Your task to perform on an android device: change the clock style Image 0: 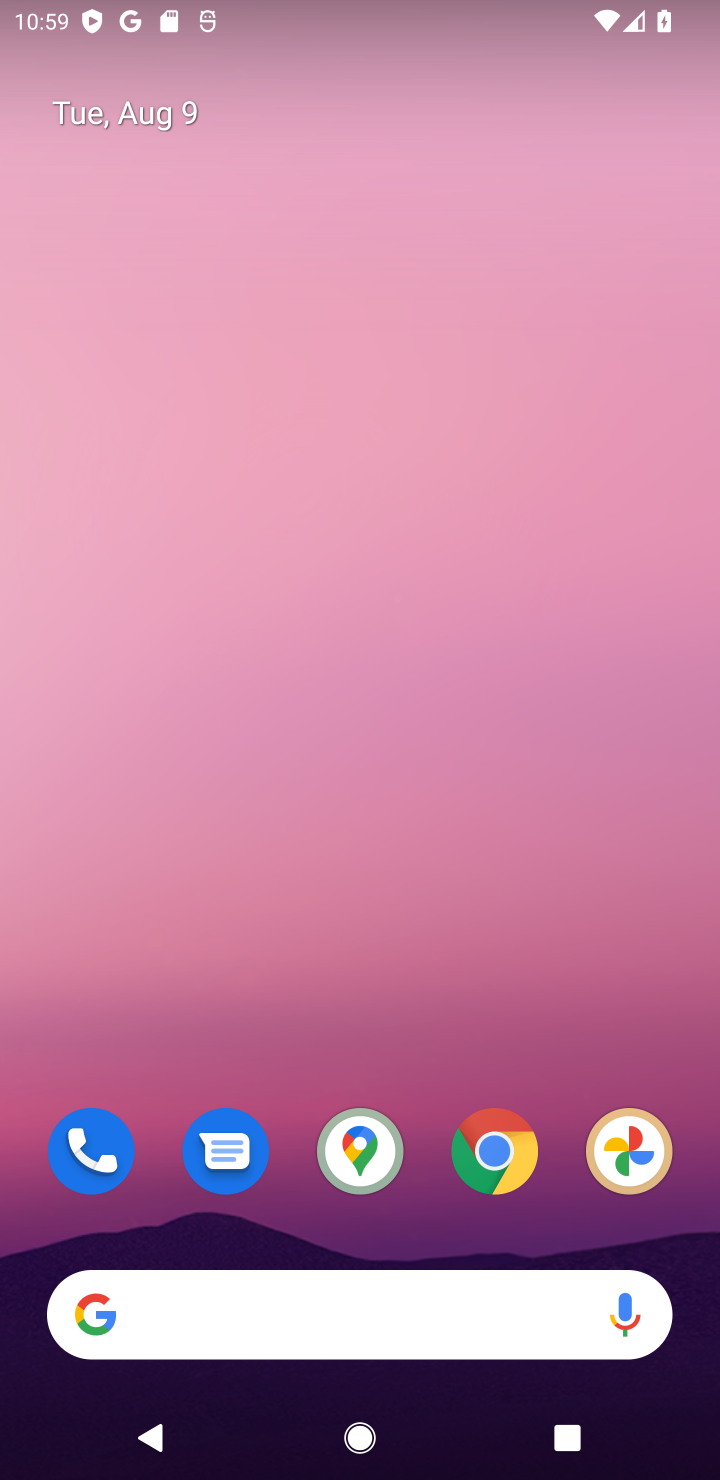
Step 0: drag from (286, 1241) to (240, 162)
Your task to perform on an android device: change the clock style Image 1: 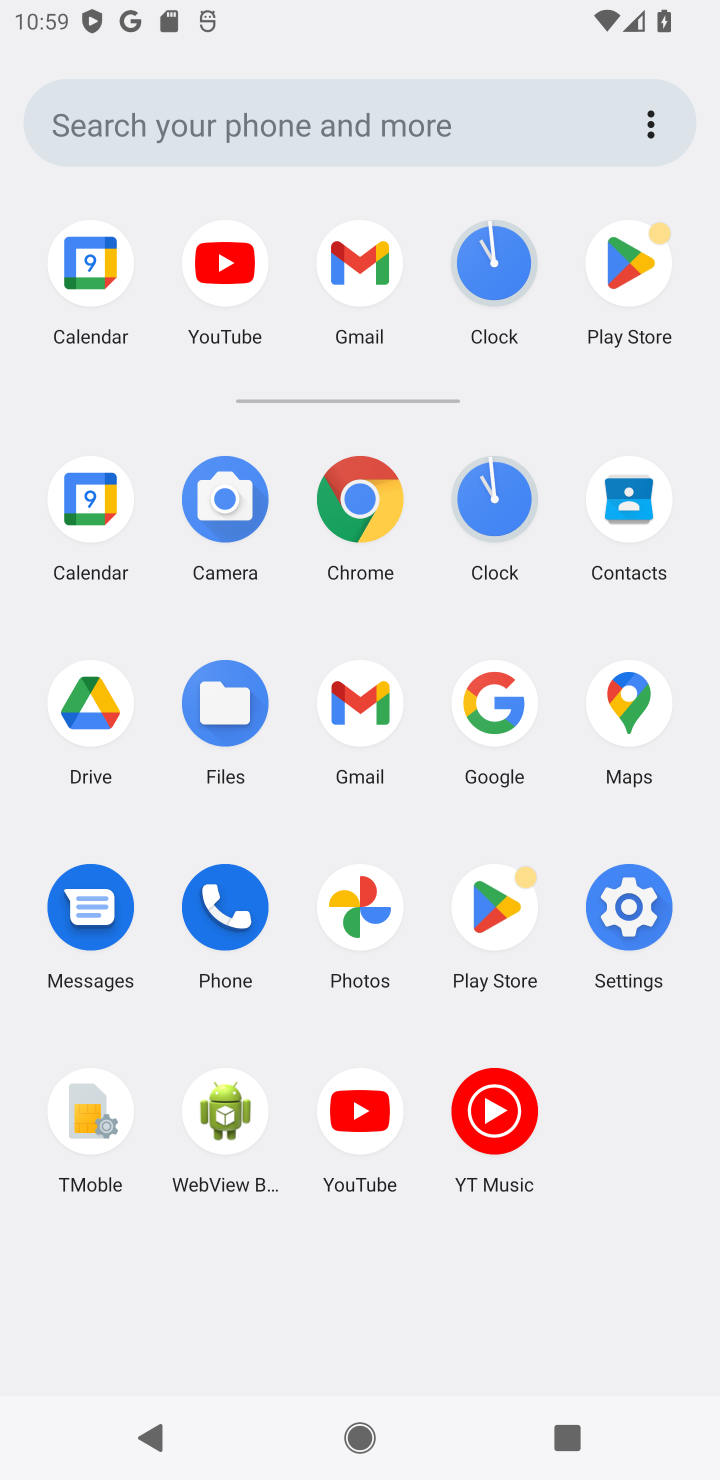
Step 1: click (464, 265)
Your task to perform on an android device: change the clock style Image 2: 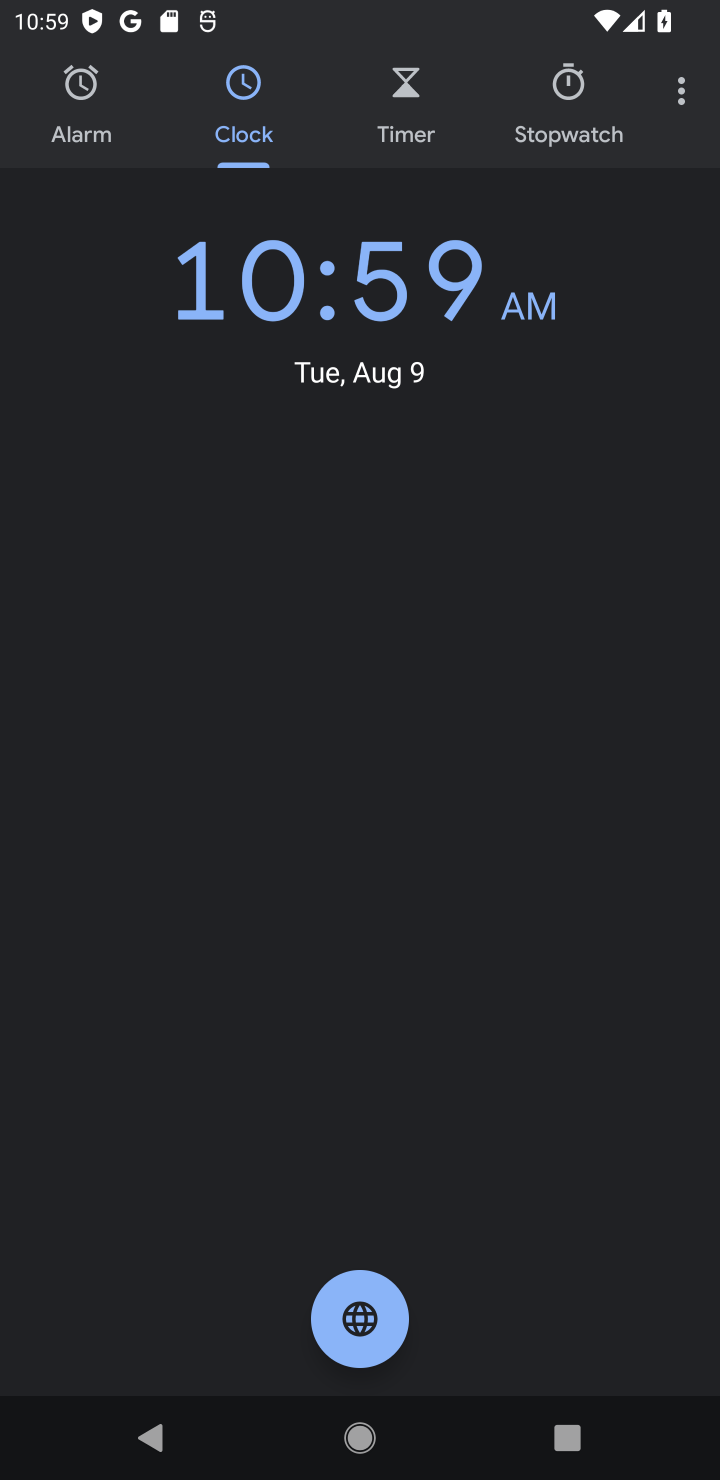
Step 2: click (687, 87)
Your task to perform on an android device: change the clock style Image 3: 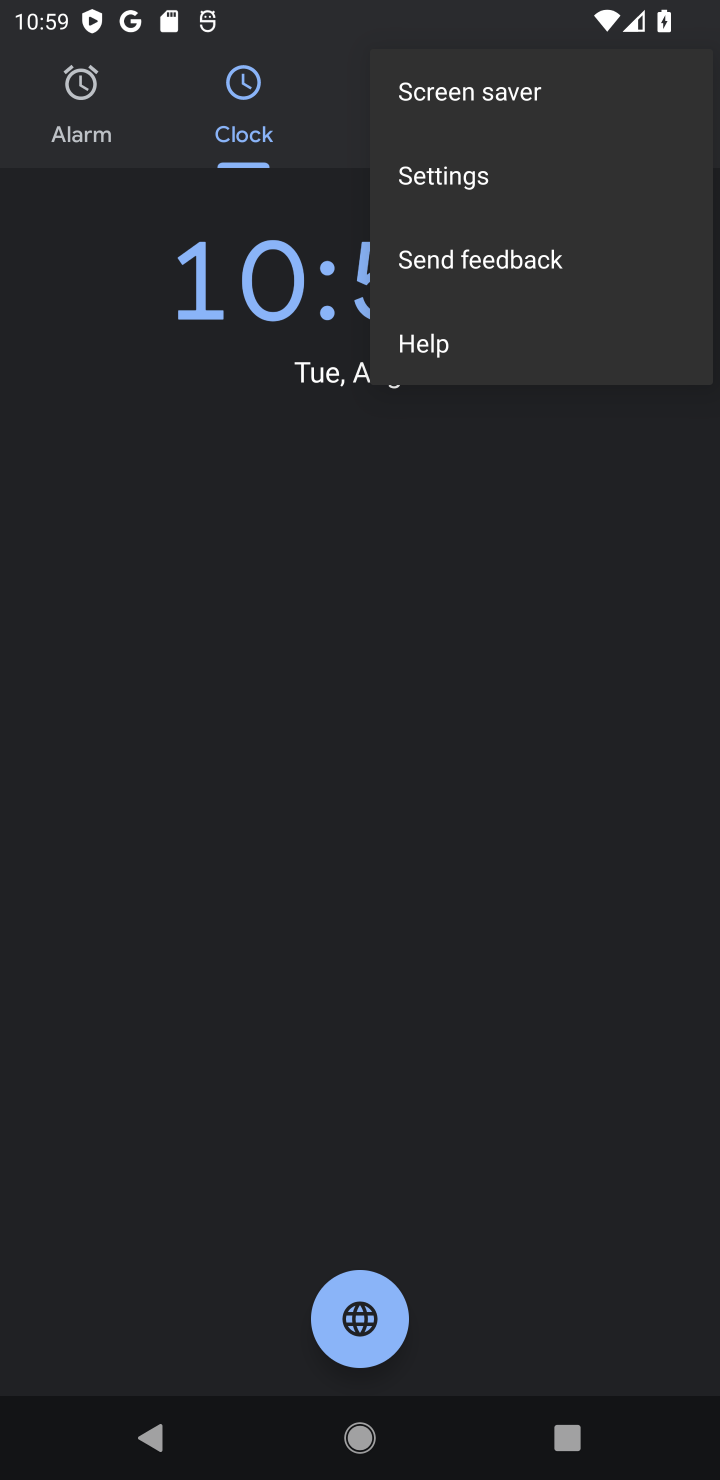
Step 3: click (440, 172)
Your task to perform on an android device: change the clock style Image 4: 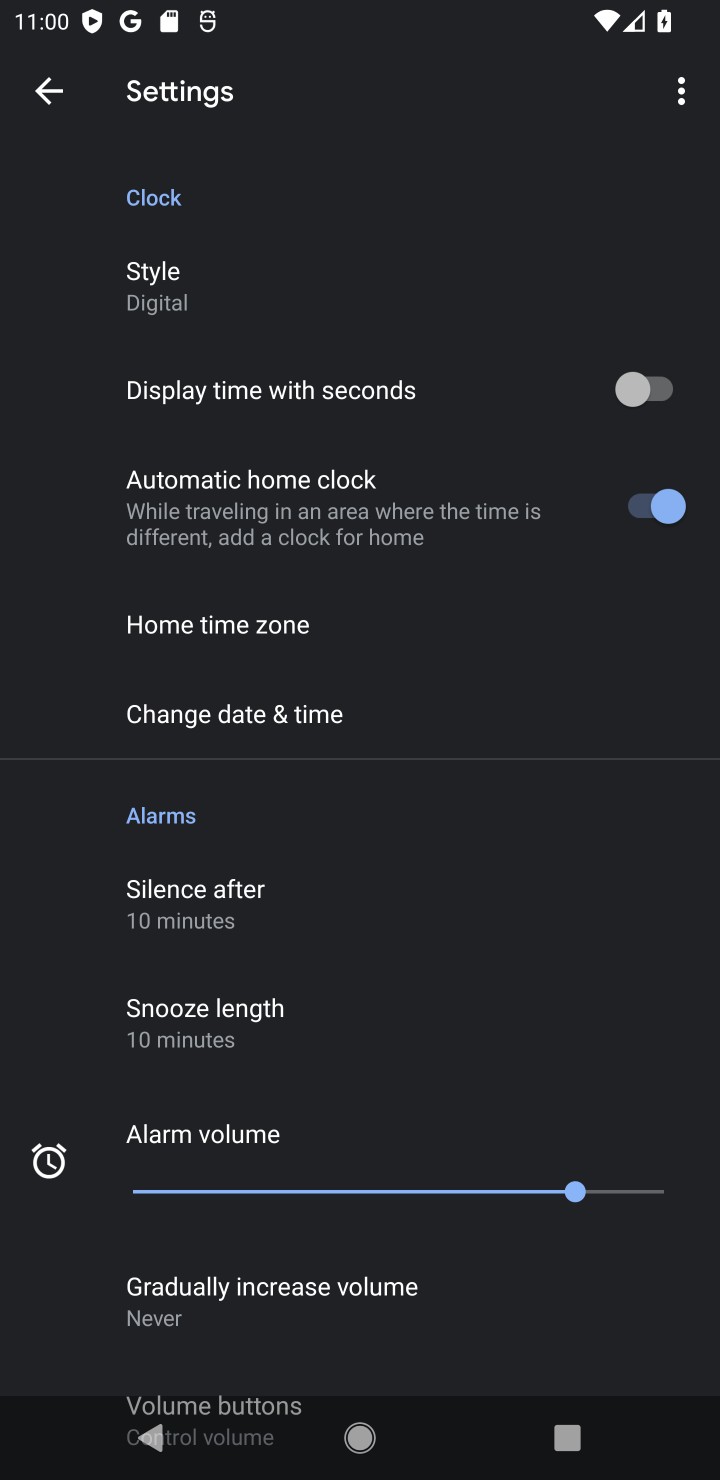
Step 4: click (370, 309)
Your task to perform on an android device: change the clock style Image 5: 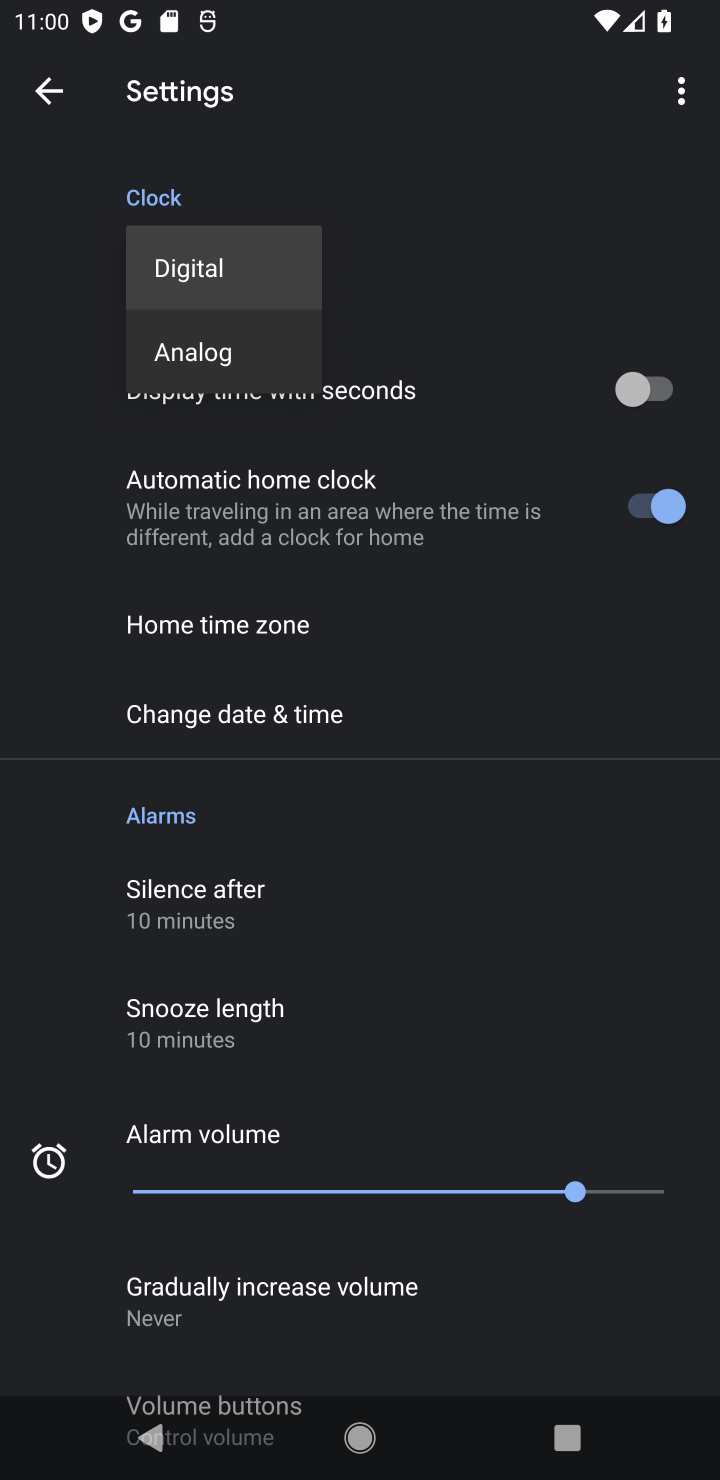
Step 5: click (253, 363)
Your task to perform on an android device: change the clock style Image 6: 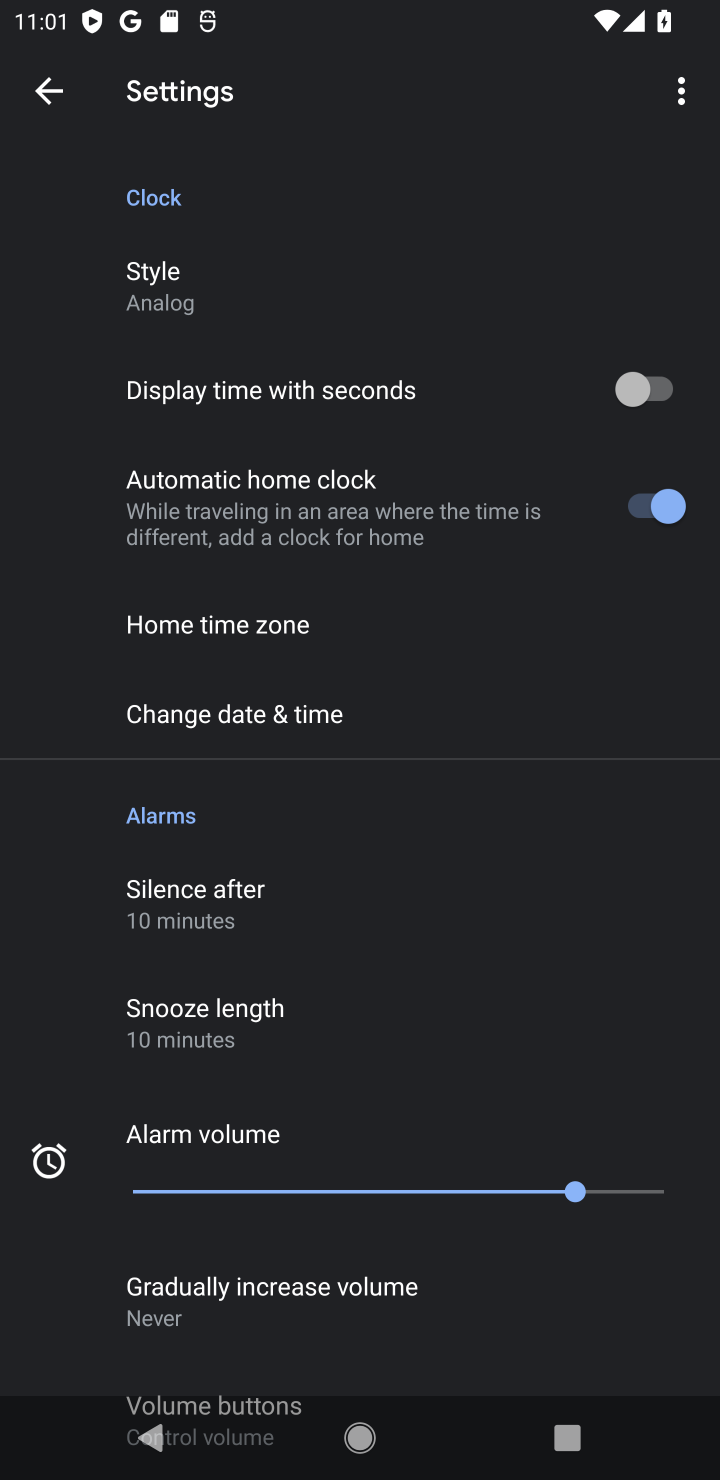
Step 6: task complete